Your task to perform on an android device: Check the news Image 0: 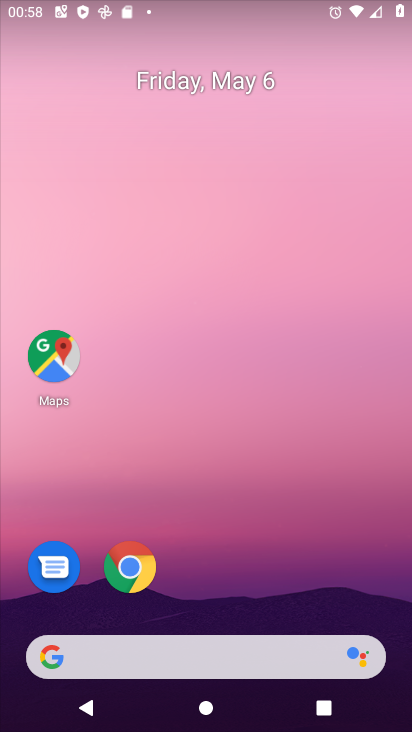
Step 0: drag from (189, 611) to (213, 144)
Your task to perform on an android device: Check the news Image 1: 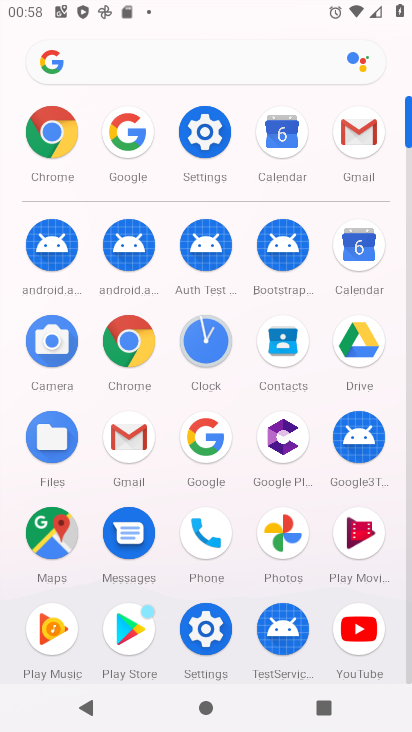
Step 1: click (126, 126)
Your task to perform on an android device: Check the news Image 2: 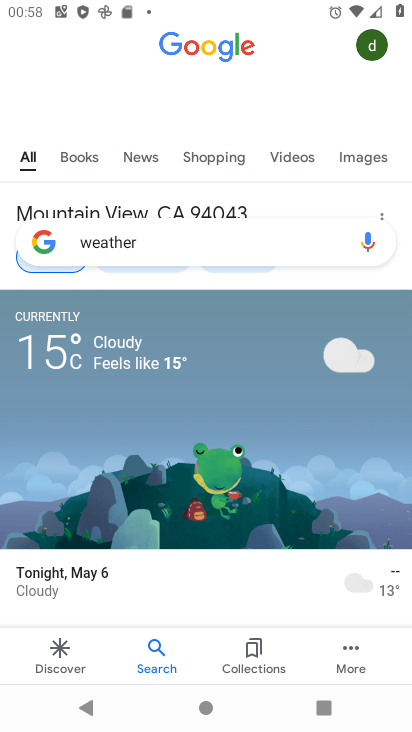
Step 2: click (146, 164)
Your task to perform on an android device: Check the news Image 3: 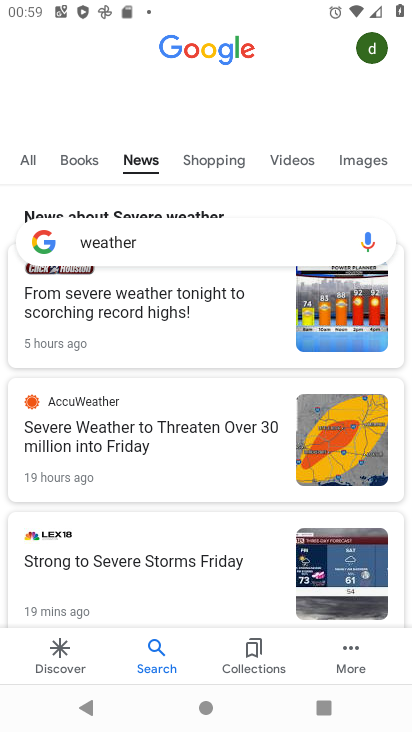
Step 3: click (198, 583)
Your task to perform on an android device: Check the news Image 4: 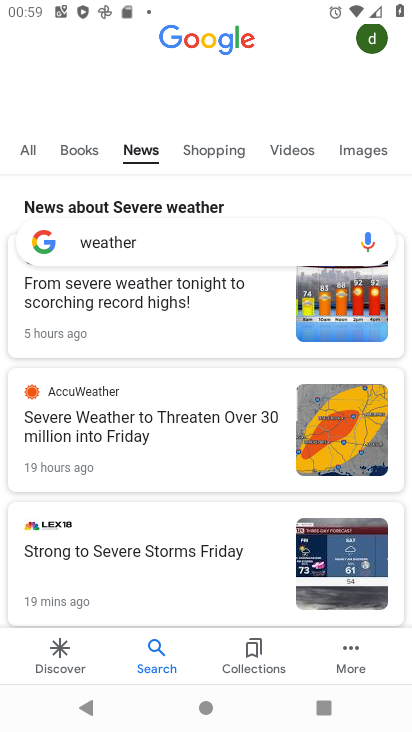
Step 4: task complete